Your task to perform on an android device: set the stopwatch Image 0: 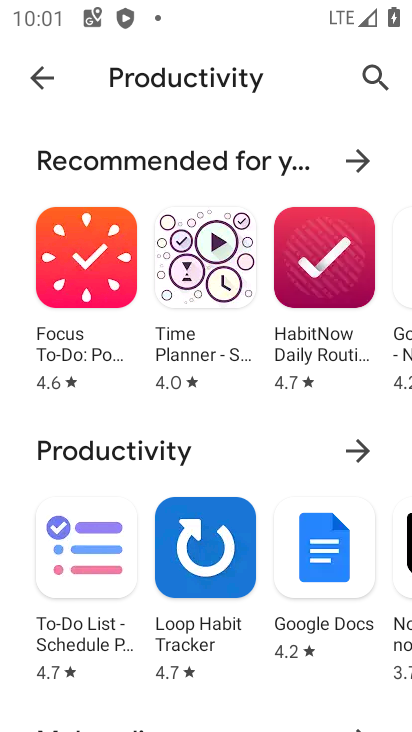
Step 0: press home button
Your task to perform on an android device: set the stopwatch Image 1: 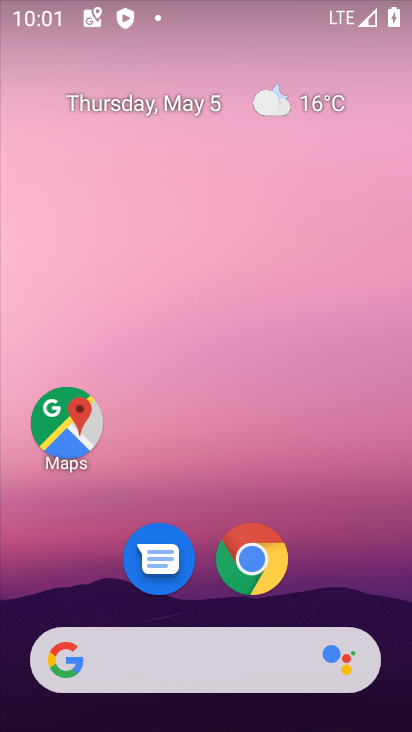
Step 1: drag from (197, 597) to (135, 11)
Your task to perform on an android device: set the stopwatch Image 2: 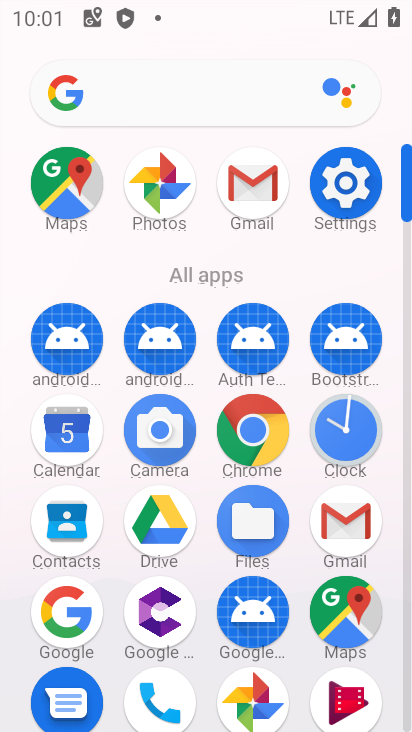
Step 2: click (355, 441)
Your task to perform on an android device: set the stopwatch Image 3: 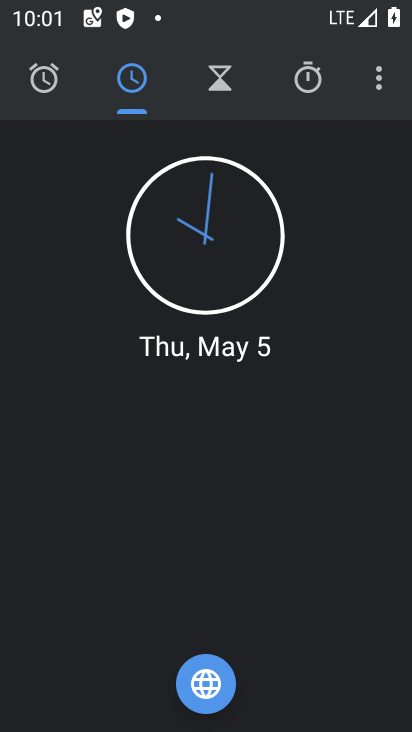
Step 3: click (298, 88)
Your task to perform on an android device: set the stopwatch Image 4: 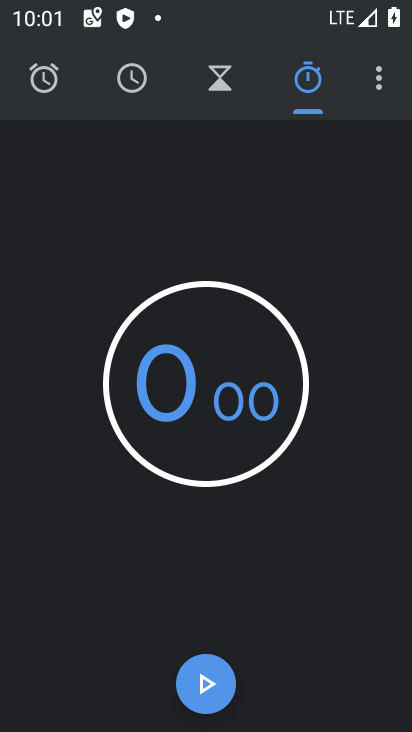
Step 4: click (204, 691)
Your task to perform on an android device: set the stopwatch Image 5: 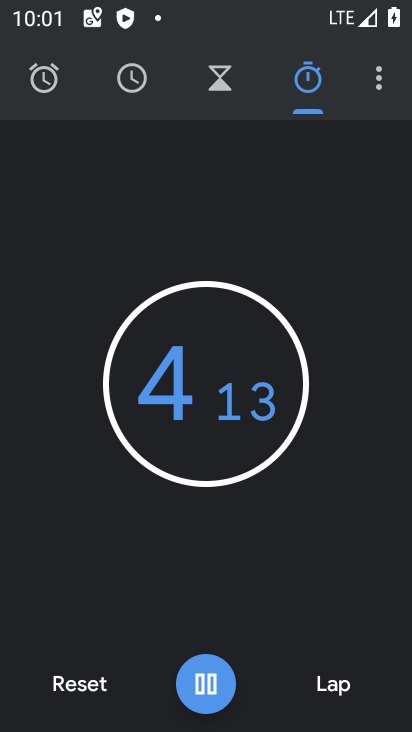
Step 5: task complete